Your task to perform on an android device: turn off picture-in-picture Image 0: 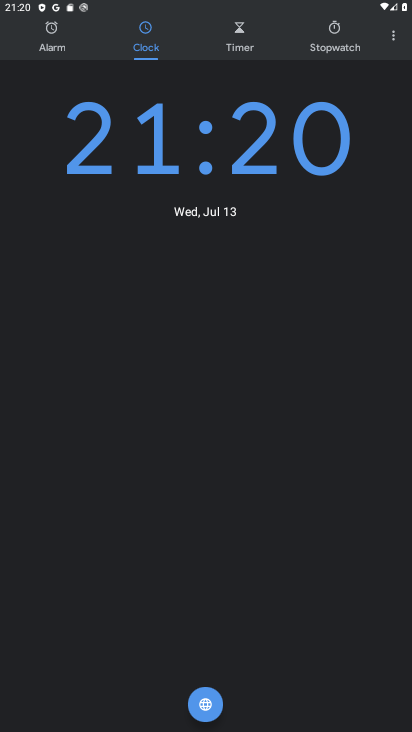
Step 0: drag from (173, 568) to (228, 128)
Your task to perform on an android device: turn off picture-in-picture Image 1: 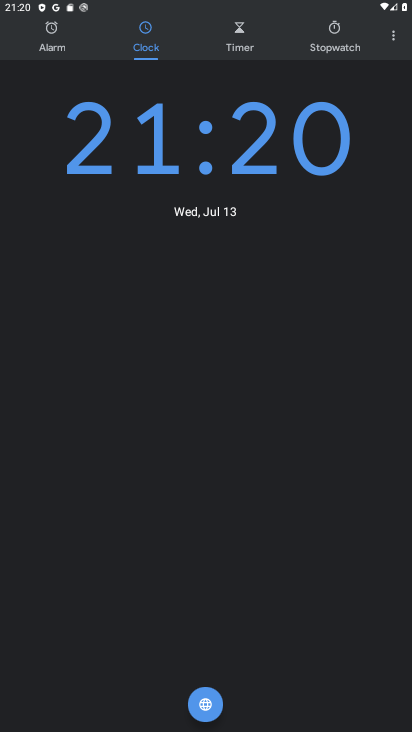
Step 1: press home button
Your task to perform on an android device: turn off picture-in-picture Image 2: 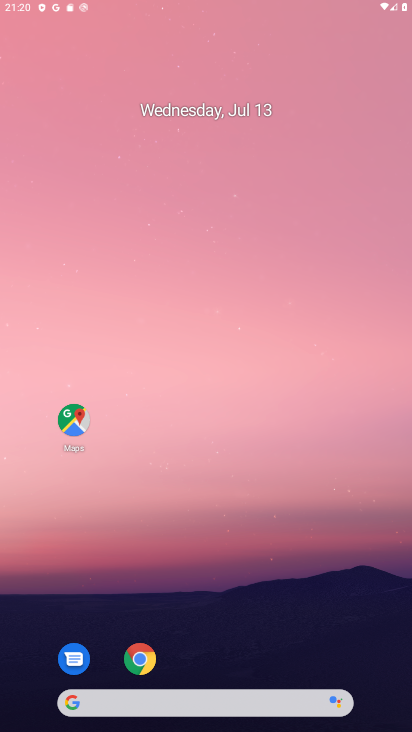
Step 2: click (245, 248)
Your task to perform on an android device: turn off picture-in-picture Image 3: 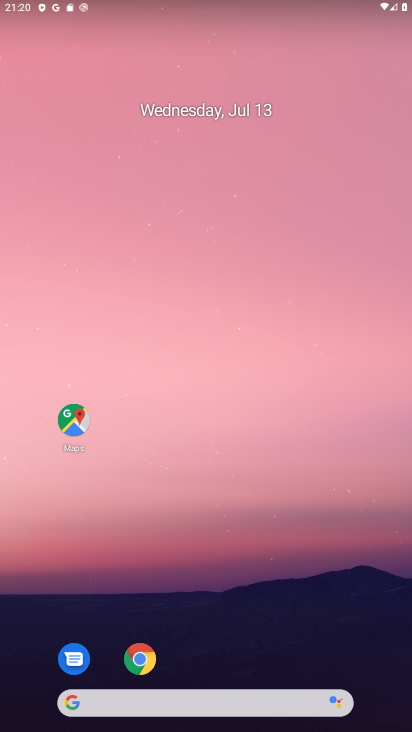
Step 3: drag from (221, 598) to (223, 225)
Your task to perform on an android device: turn off picture-in-picture Image 4: 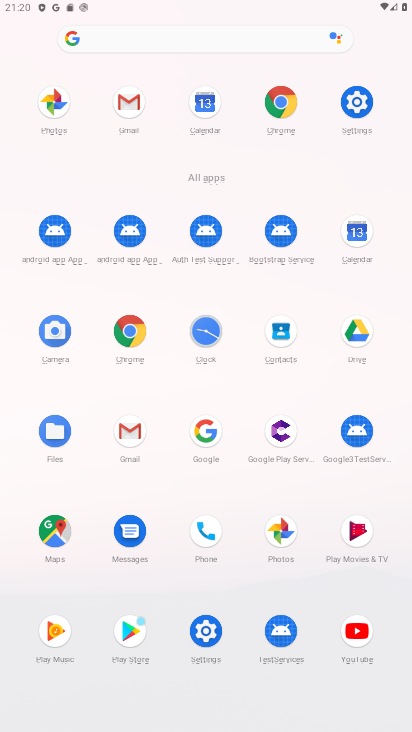
Step 4: click (338, 99)
Your task to perform on an android device: turn off picture-in-picture Image 5: 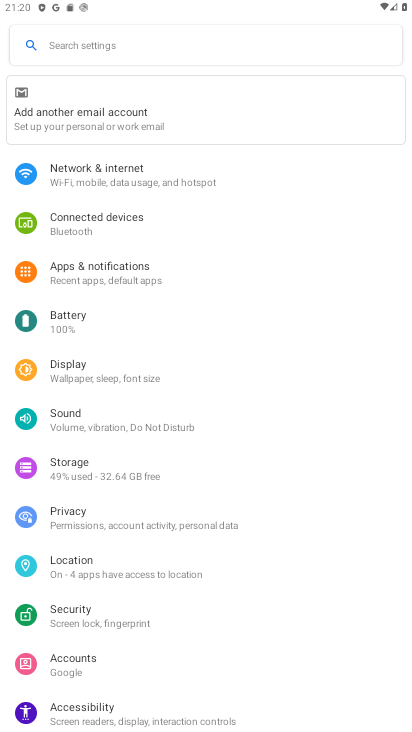
Step 5: click (96, 257)
Your task to perform on an android device: turn off picture-in-picture Image 6: 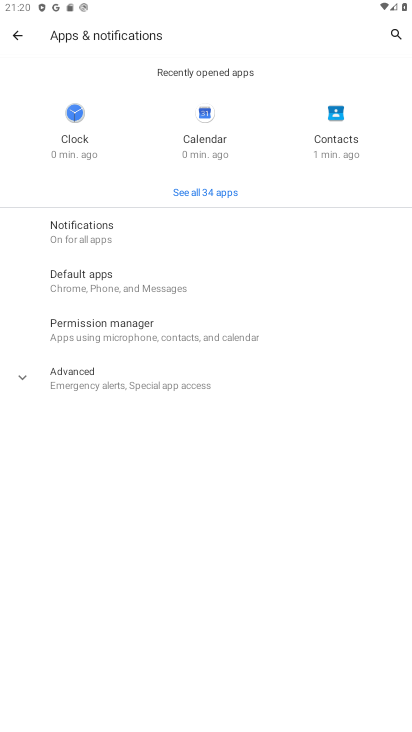
Step 6: click (95, 373)
Your task to perform on an android device: turn off picture-in-picture Image 7: 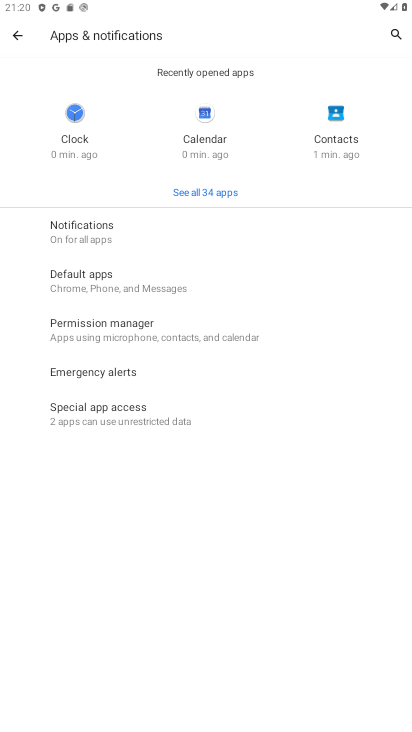
Step 7: click (108, 422)
Your task to perform on an android device: turn off picture-in-picture Image 8: 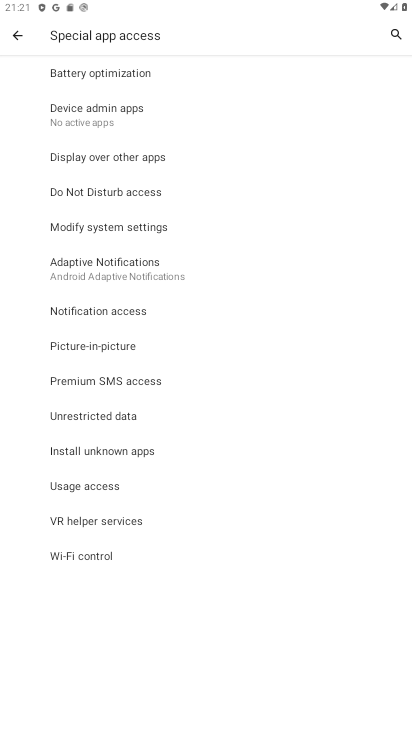
Step 8: click (131, 338)
Your task to perform on an android device: turn off picture-in-picture Image 9: 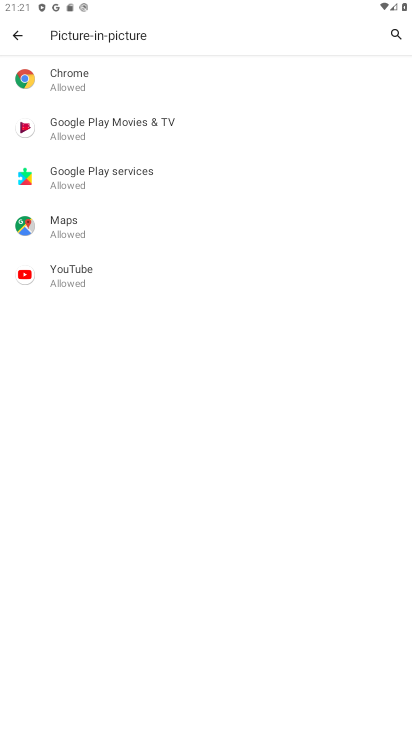
Step 9: click (88, 278)
Your task to perform on an android device: turn off picture-in-picture Image 10: 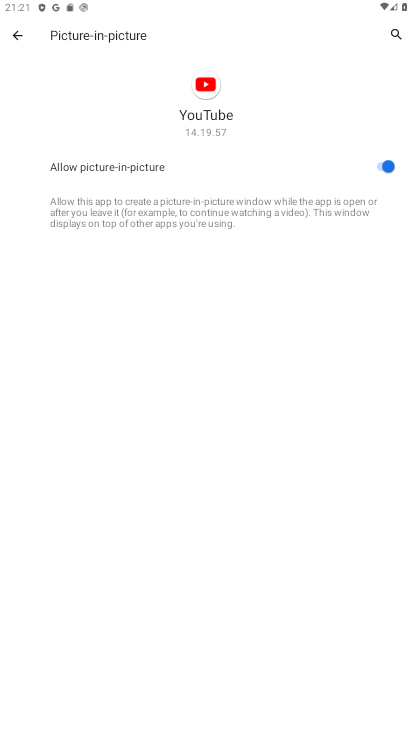
Step 10: click (374, 157)
Your task to perform on an android device: turn off picture-in-picture Image 11: 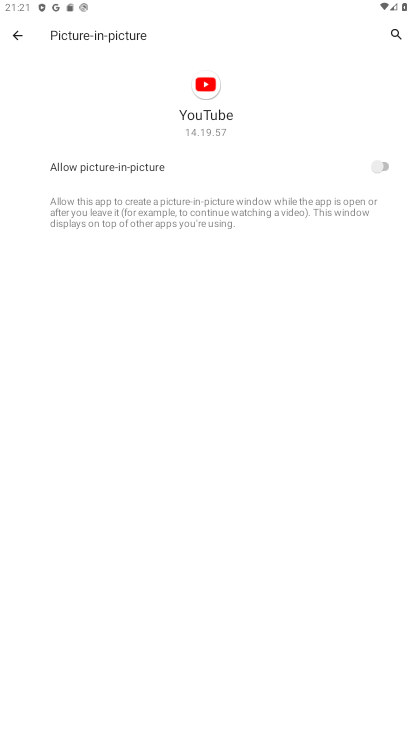
Step 11: task complete